Your task to perform on an android device: Go to Reddit.com Image 0: 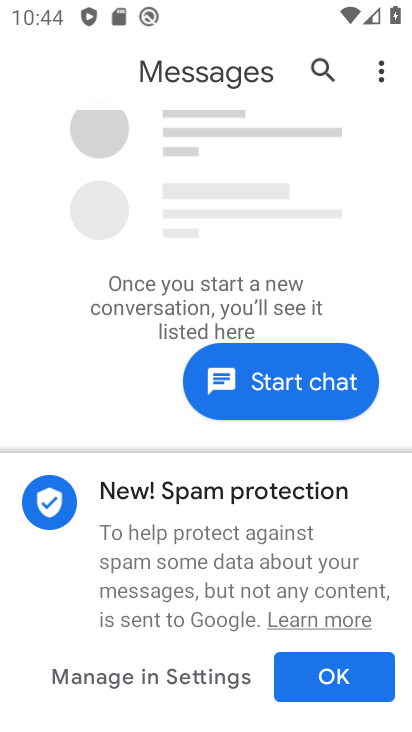
Step 0: click (62, 442)
Your task to perform on an android device: Go to Reddit.com Image 1: 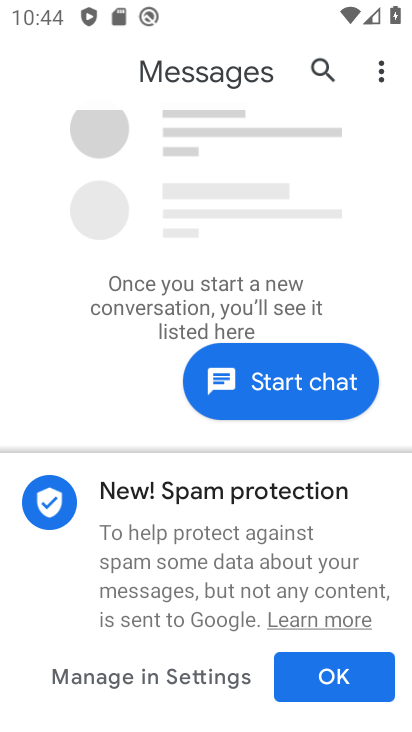
Step 1: press home button
Your task to perform on an android device: Go to Reddit.com Image 2: 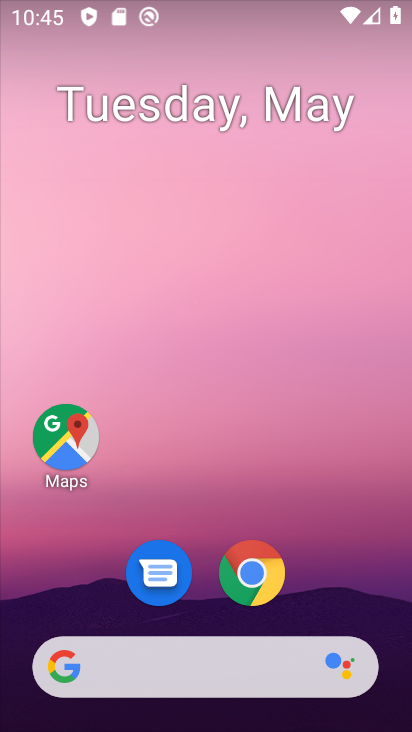
Step 2: drag from (182, 588) to (170, 237)
Your task to perform on an android device: Go to Reddit.com Image 3: 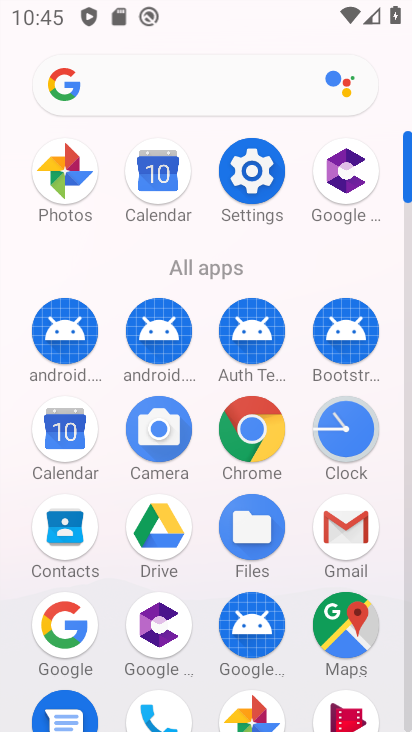
Step 3: click (80, 632)
Your task to perform on an android device: Go to Reddit.com Image 4: 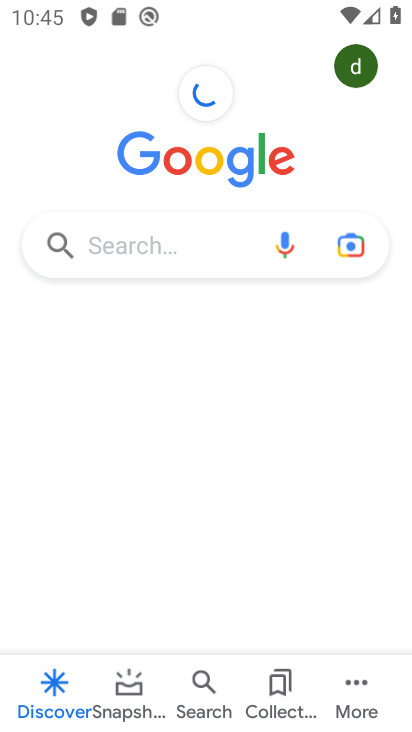
Step 4: click (130, 241)
Your task to perform on an android device: Go to Reddit.com Image 5: 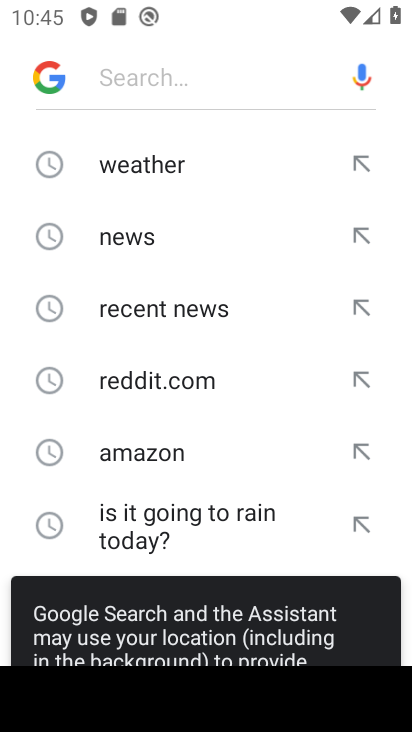
Step 5: click (149, 381)
Your task to perform on an android device: Go to Reddit.com Image 6: 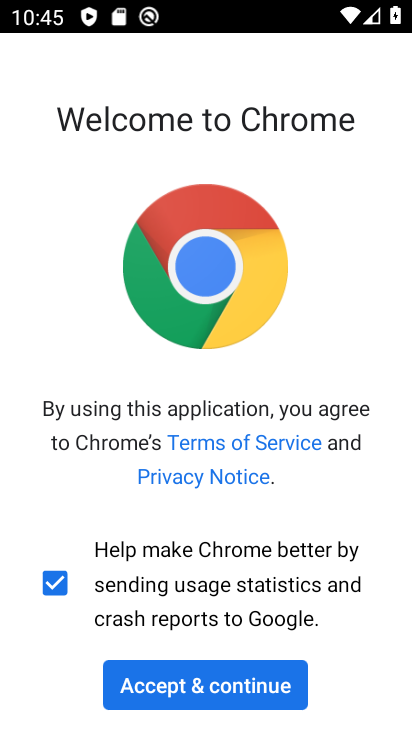
Step 6: click (229, 685)
Your task to perform on an android device: Go to Reddit.com Image 7: 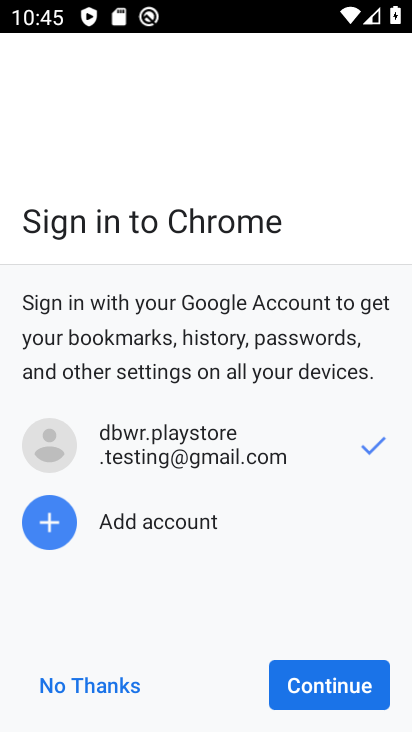
Step 7: click (300, 683)
Your task to perform on an android device: Go to Reddit.com Image 8: 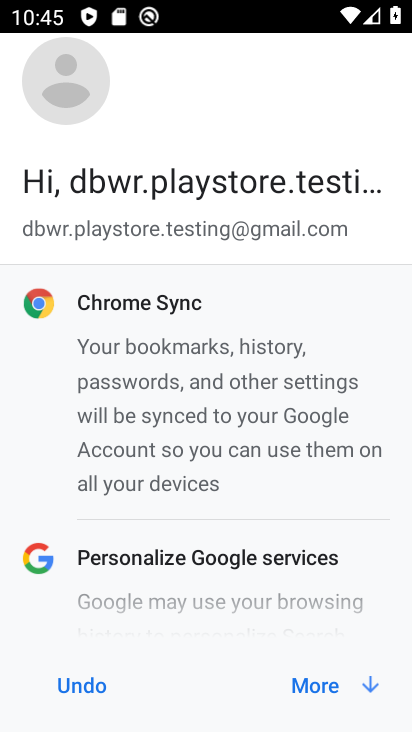
Step 8: click (300, 683)
Your task to perform on an android device: Go to Reddit.com Image 9: 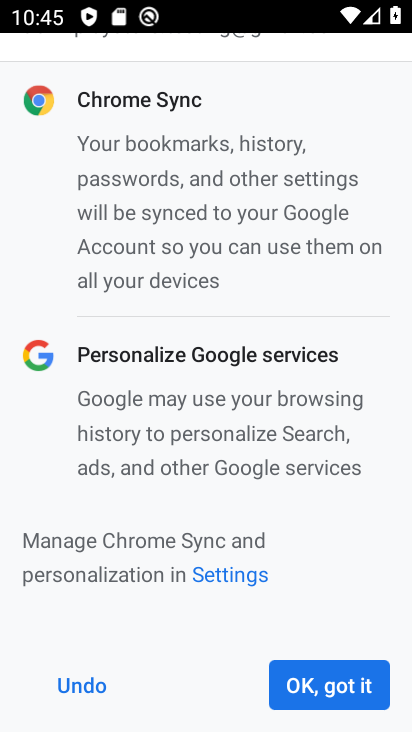
Step 9: click (300, 683)
Your task to perform on an android device: Go to Reddit.com Image 10: 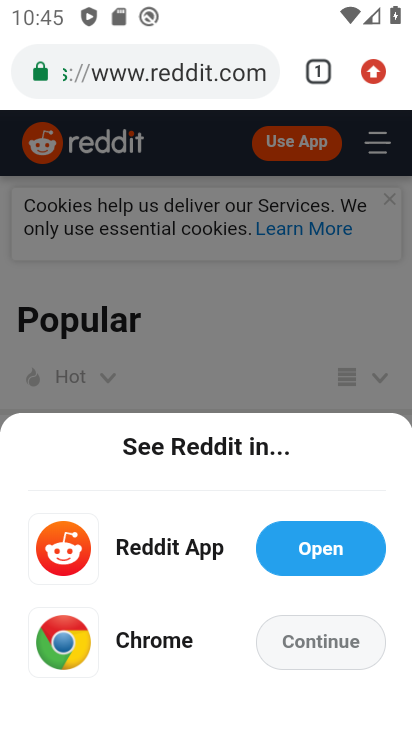
Step 10: task complete